Your task to perform on an android device: delete browsing data in the chrome app Image 0: 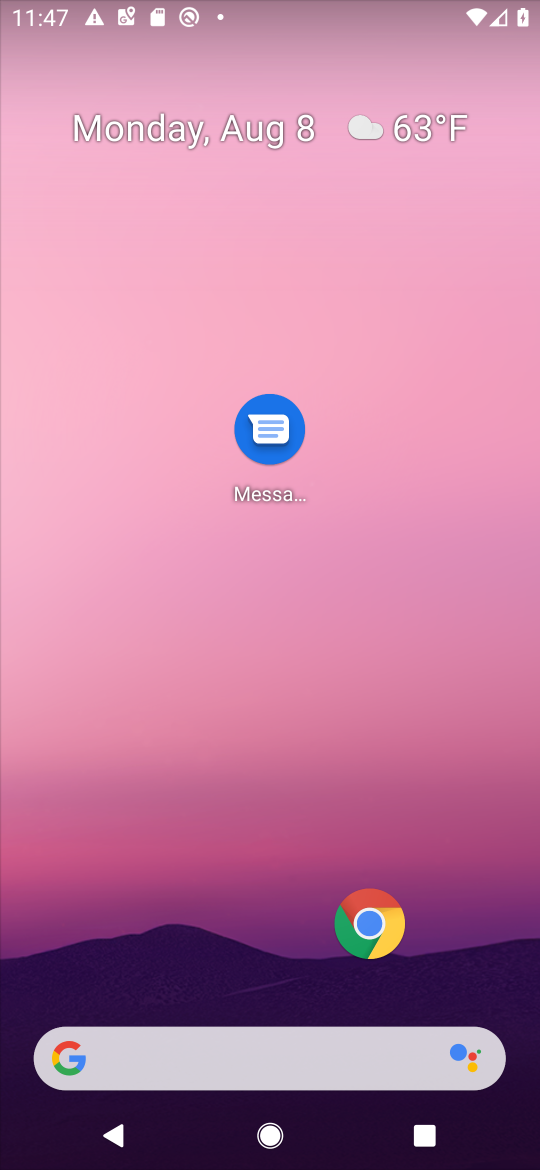
Step 0: click (383, 930)
Your task to perform on an android device: delete browsing data in the chrome app Image 1: 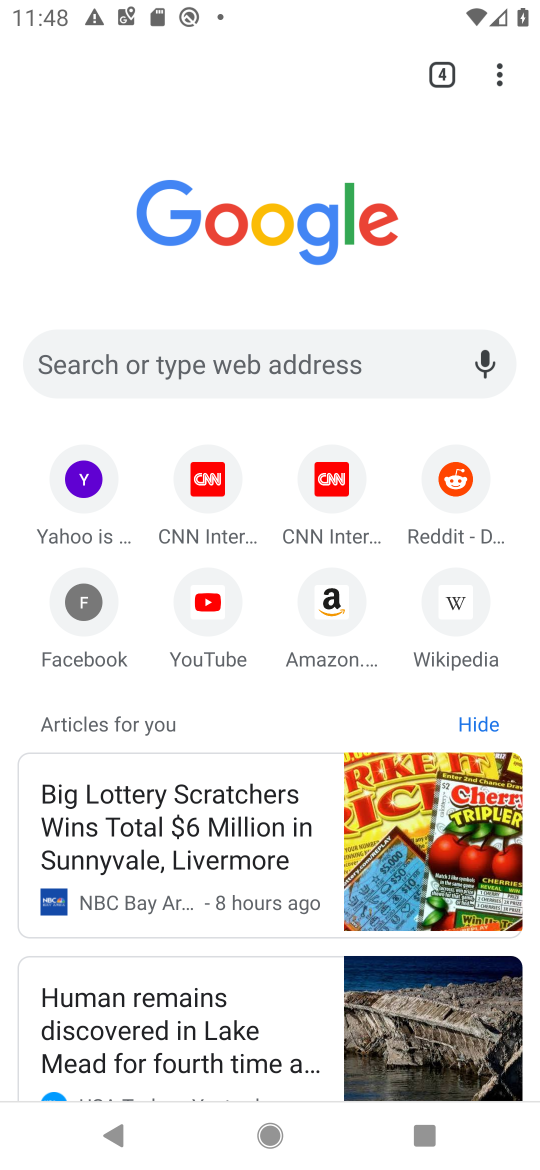
Step 1: click (501, 75)
Your task to perform on an android device: delete browsing data in the chrome app Image 2: 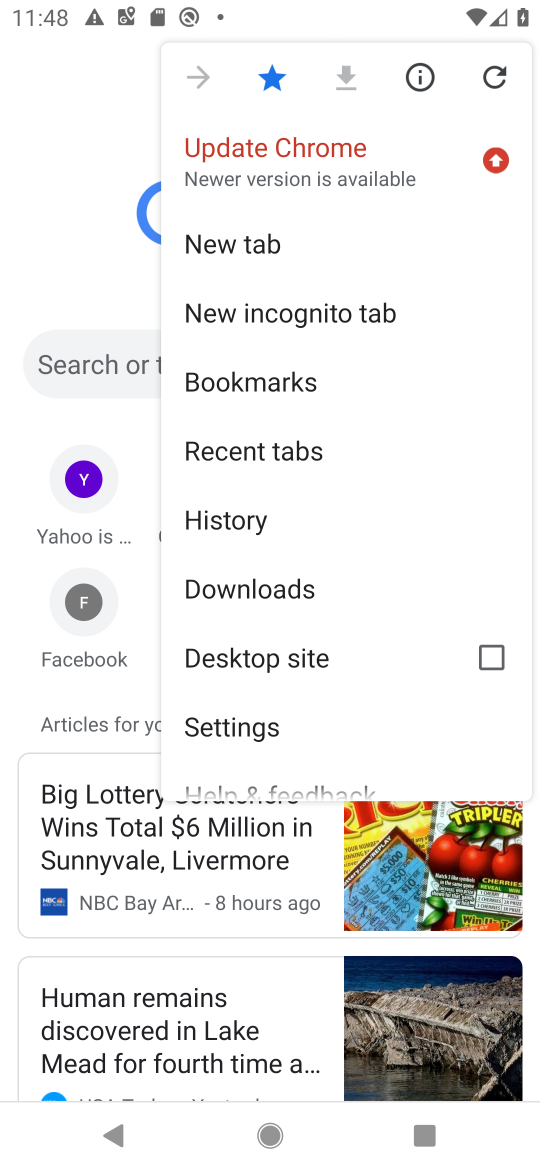
Step 2: click (250, 714)
Your task to perform on an android device: delete browsing data in the chrome app Image 3: 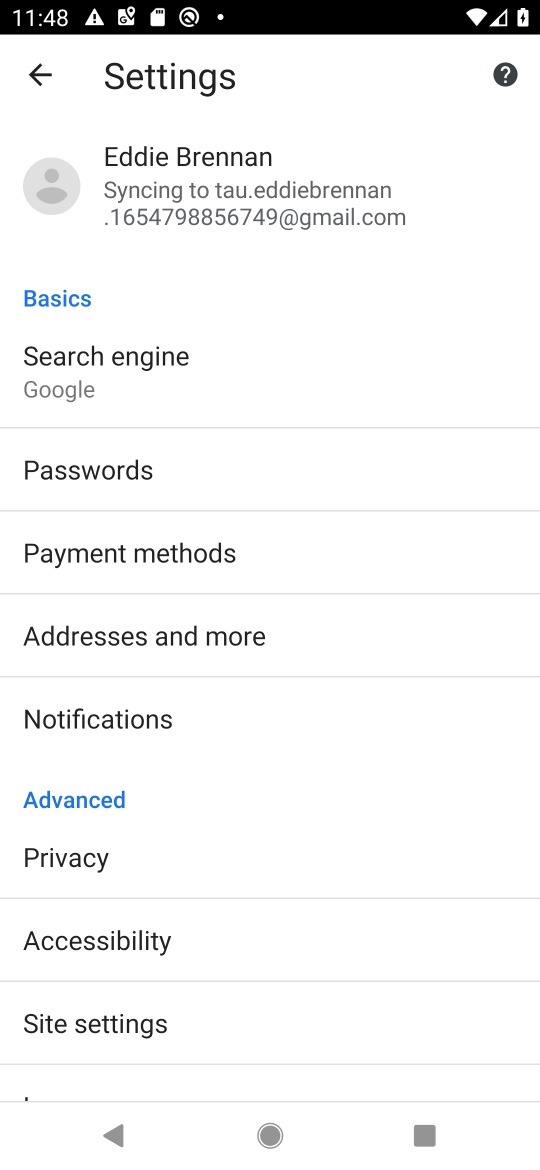
Step 3: click (28, 70)
Your task to perform on an android device: delete browsing data in the chrome app Image 4: 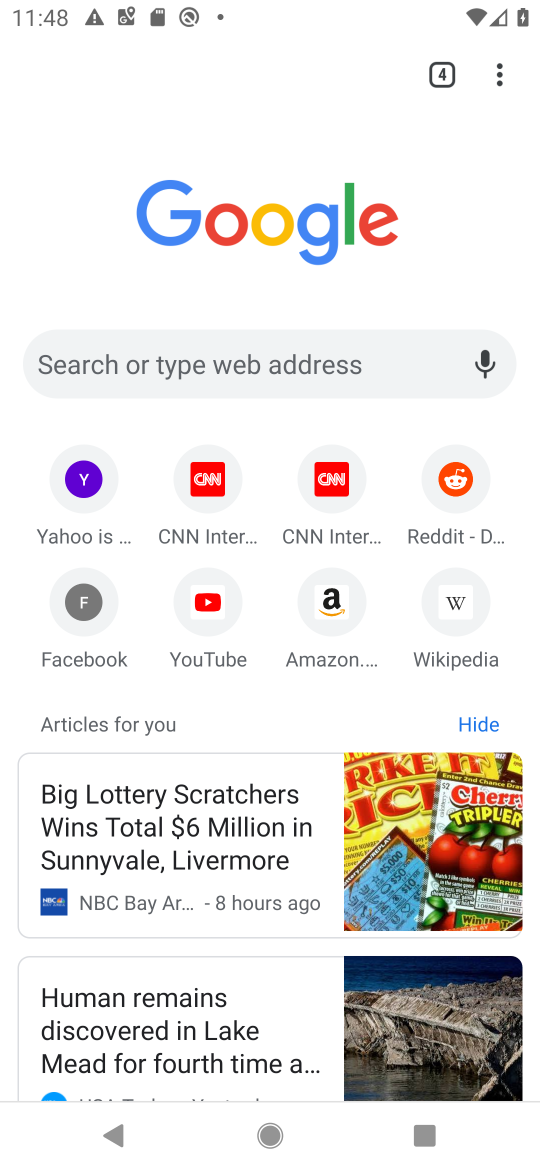
Step 4: click (505, 52)
Your task to perform on an android device: delete browsing data in the chrome app Image 5: 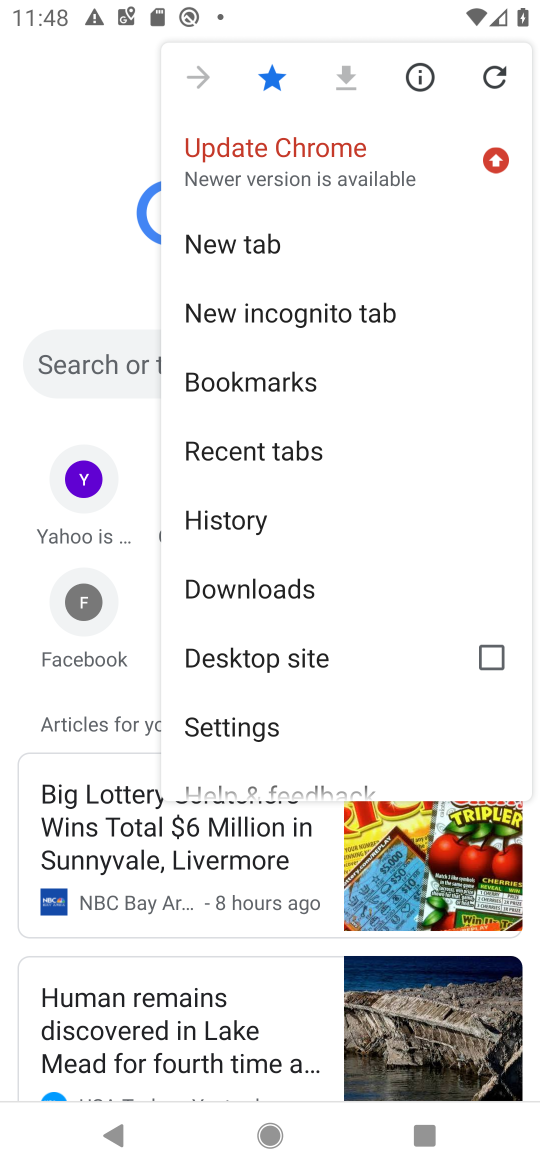
Step 5: click (224, 513)
Your task to perform on an android device: delete browsing data in the chrome app Image 6: 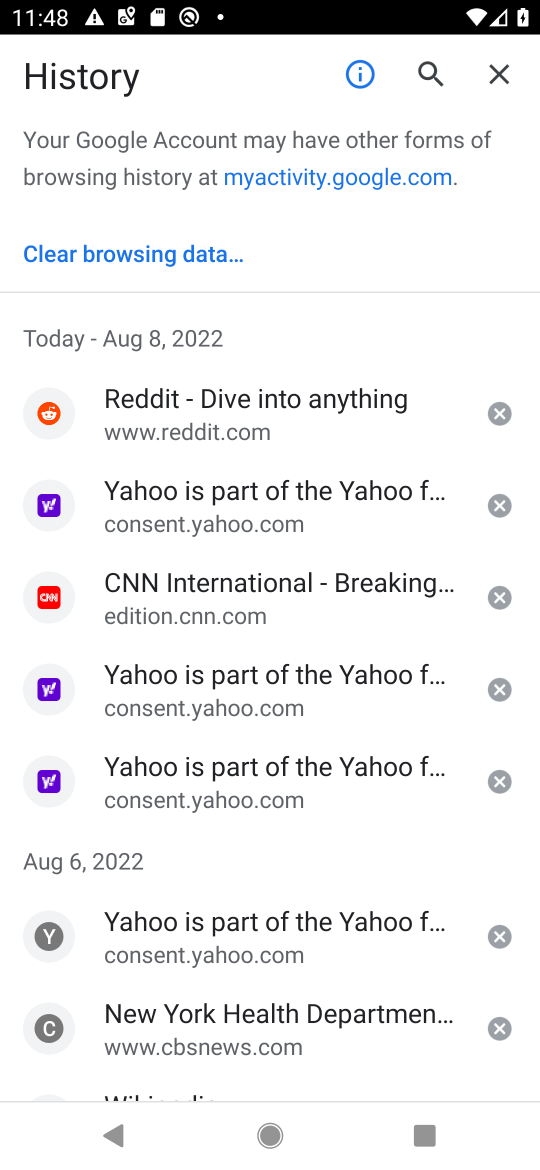
Step 6: click (89, 250)
Your task to perform on an android device: delete browsing data in the chrome app Image 7: 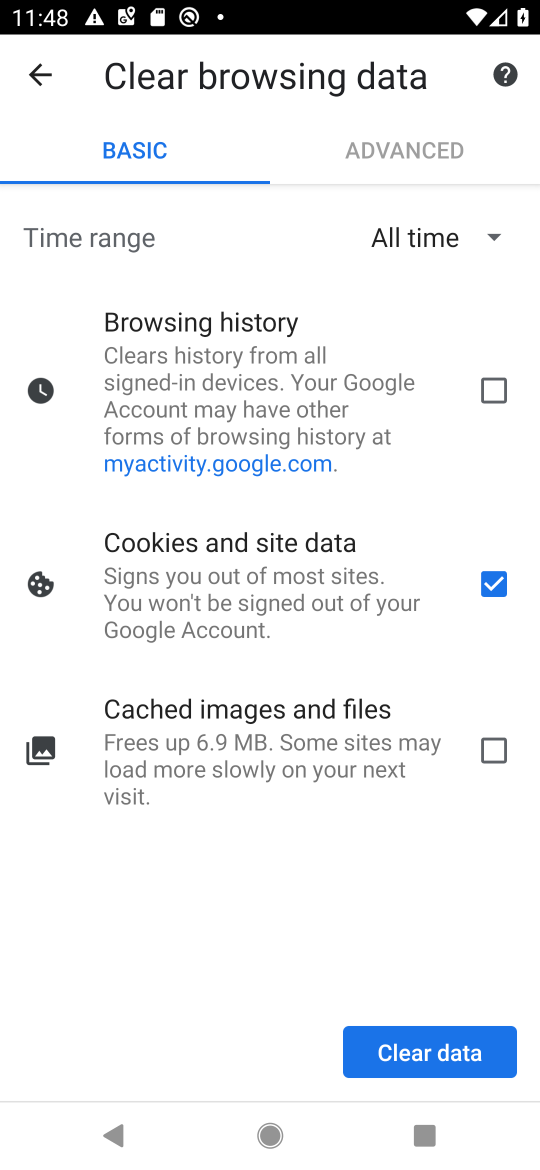
Step 7: click (488, 386)
Your task to perform on an android device: delete browsing data in the chrome app Image 8: 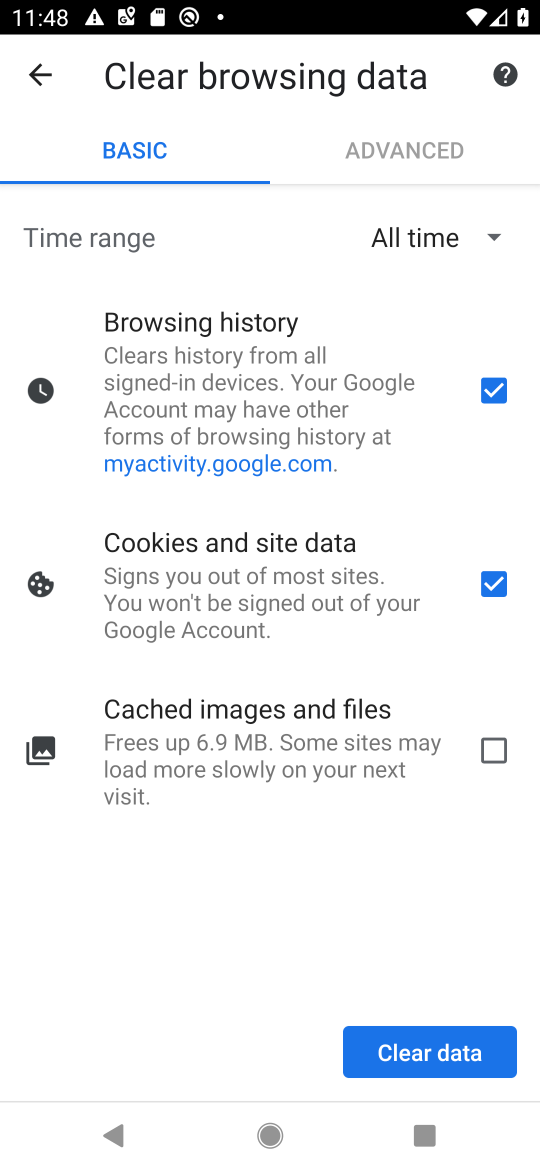
Step 8: click (491, 586)
Your task to perform on an android device: delete browsing data in the chrome app Image 9: 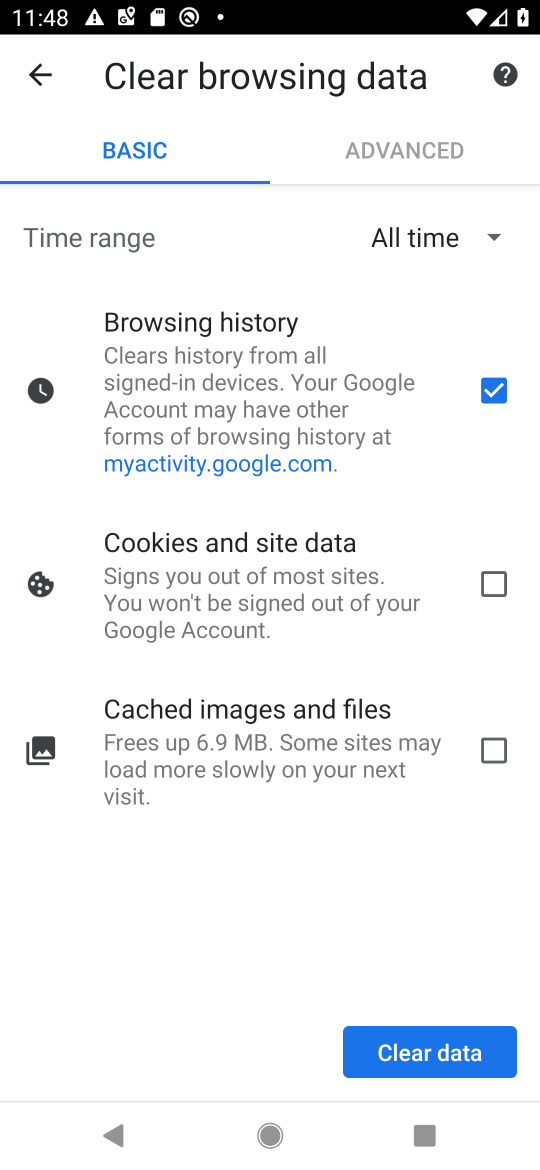
Step 9: click (419, 1066)
Your task to perform on an android device: delete browsing data in the chrome app Image 10: 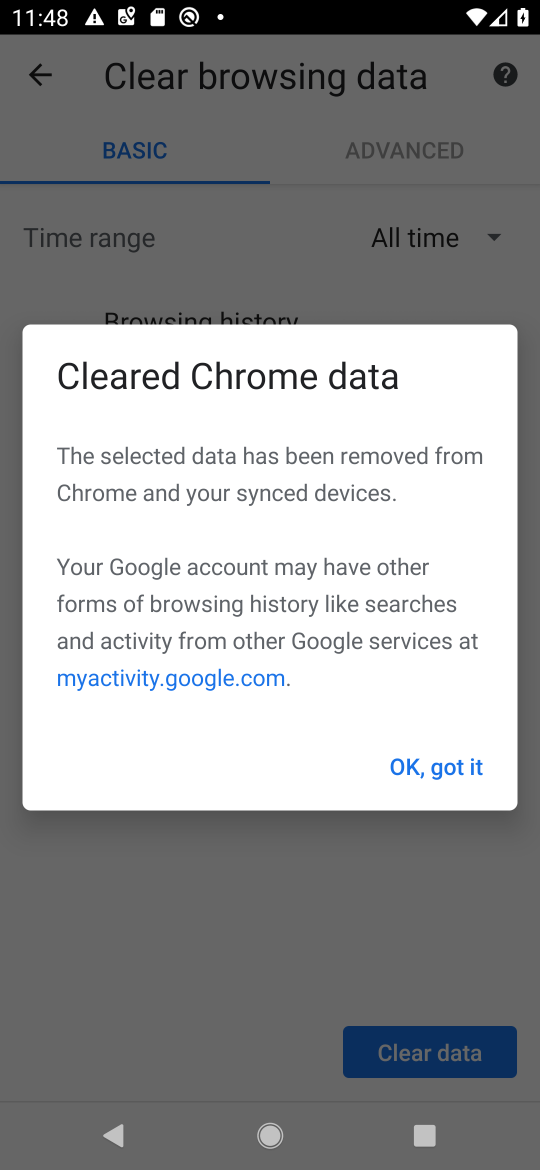
Step 10: click (436, 784)
Your task to perform on an android device: delete browsing data in the chrome app Image 11: 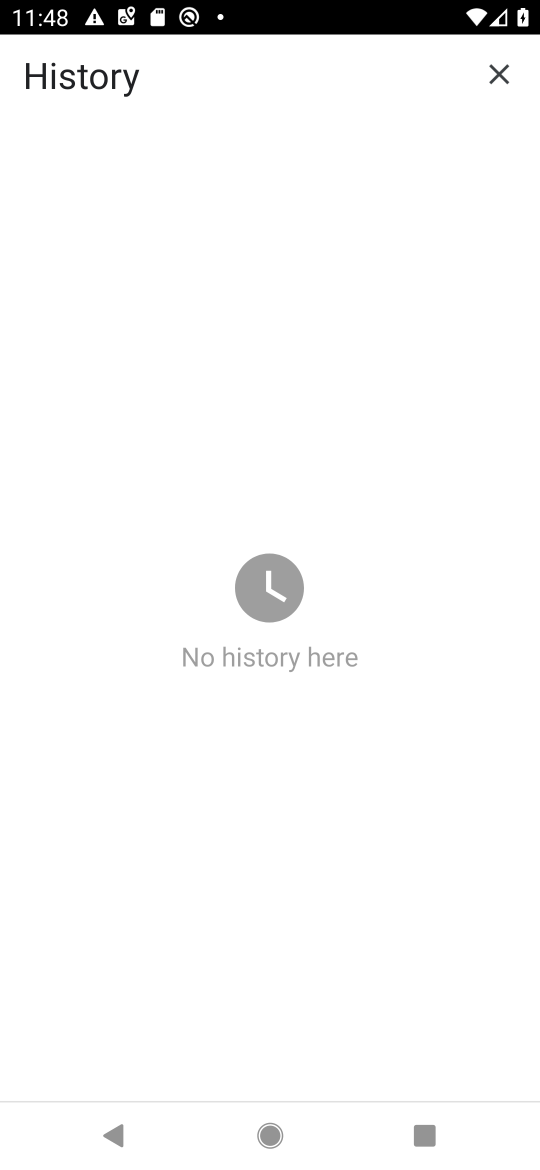
Step 11: task complete